Your task to perform on an android device: Open calendar and show me the first week of next month Image 0: 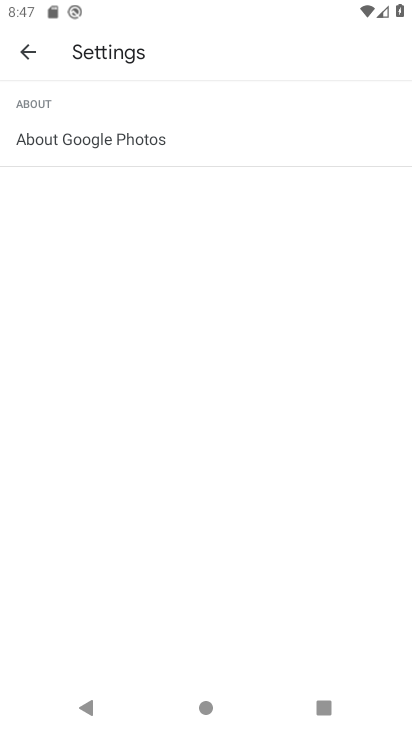
Step 0: press home button
Your task to perform on an android device: Open calendar and show me the first week of next month Image 1: 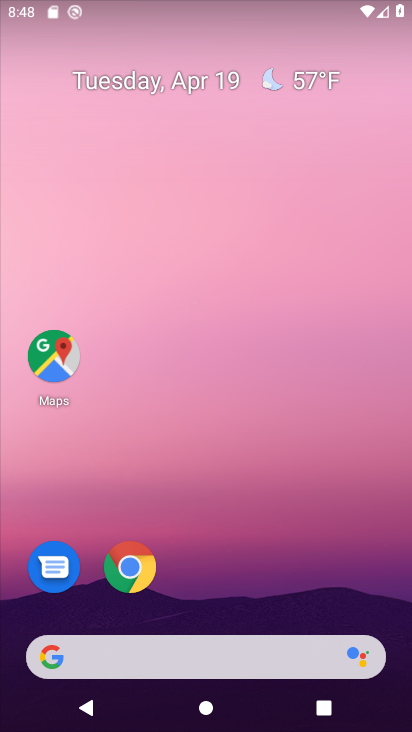
Step 1: drag from (272, 673) to (265, 0)
Your task to perform on an android device: Open calendar and show me the first week of next month Image 2: 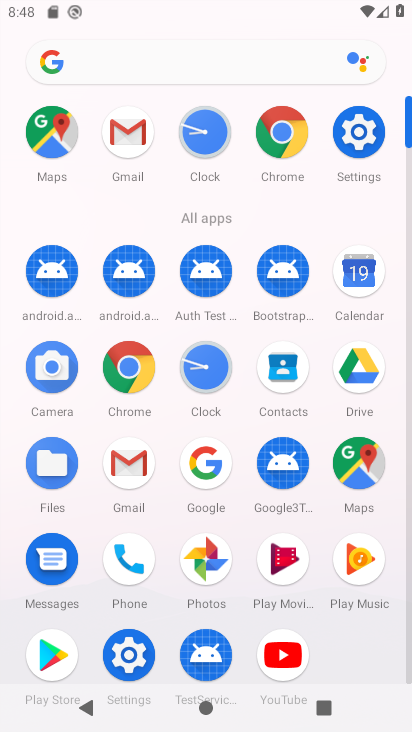
Step 2: click (367, 284)
Your task to perform on an android device: Open calendar and show me the first week of next month Image 3: 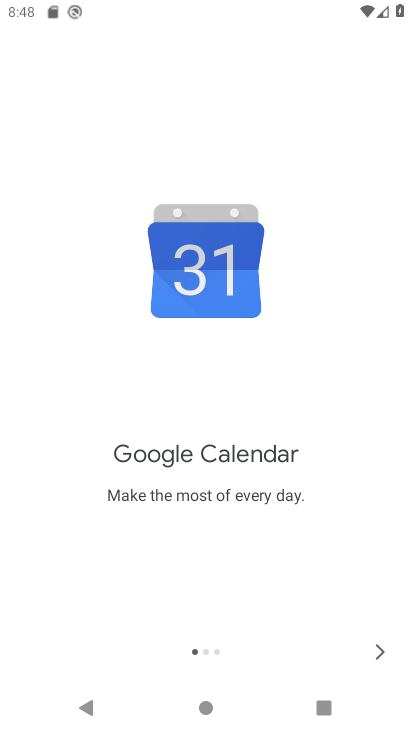
Step 3: click (368, 654)
Your task to perform on an android device: Open calendar and show me the first week of next month Image 4: 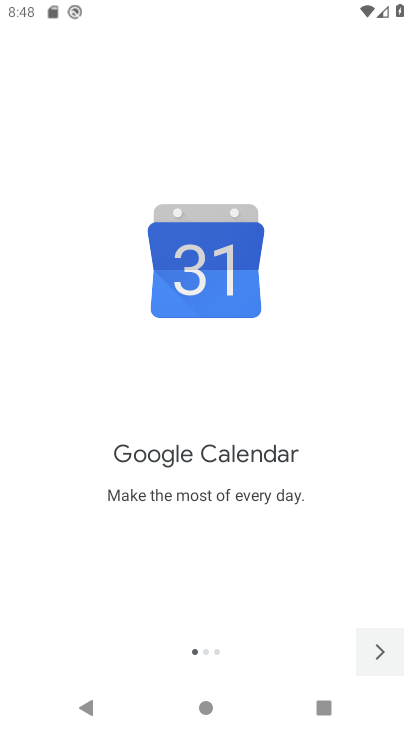
Step 4: click (368, 654)
Your task to perform on an android device: Open calendar and show me the first week of next month Image 5: 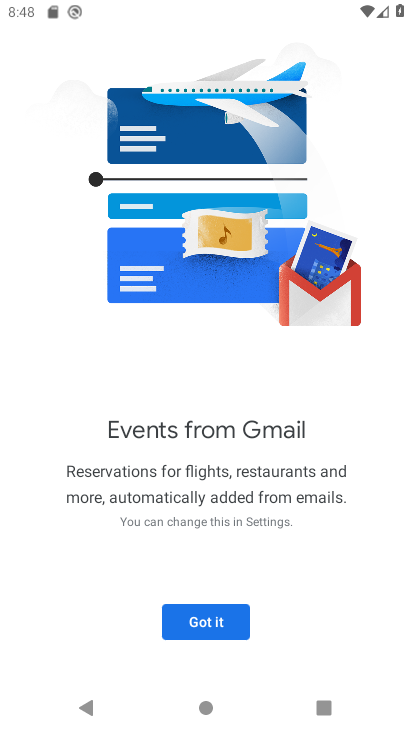
Step 5: click (368, 654)
Your task to perform on an android device: Open calendar and show me the first week of next month Image 6: 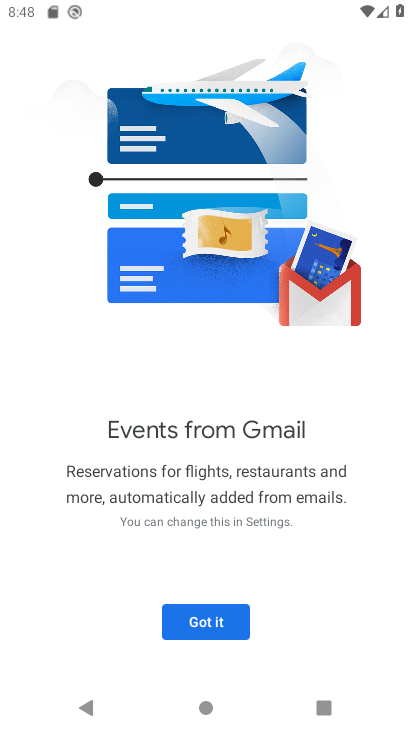
Step 6: click (179, 610)
Your task to perform on an android device: Open calendar and show me the first week of next month Image 7: 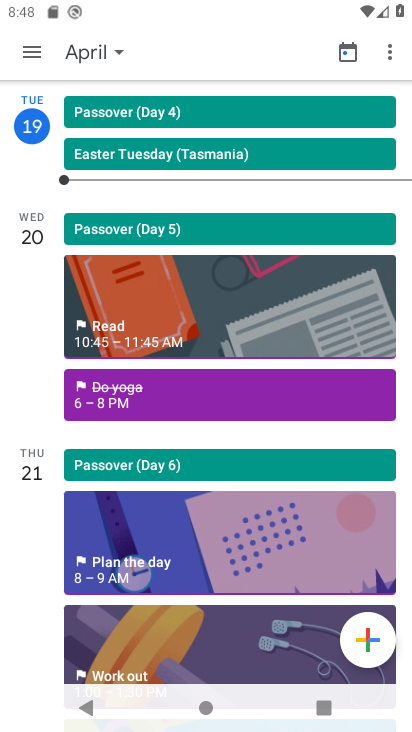
Step 7: click (98, 55)
Your task to perform on an android device: Open calendar and show me the first week of next month Image 8: 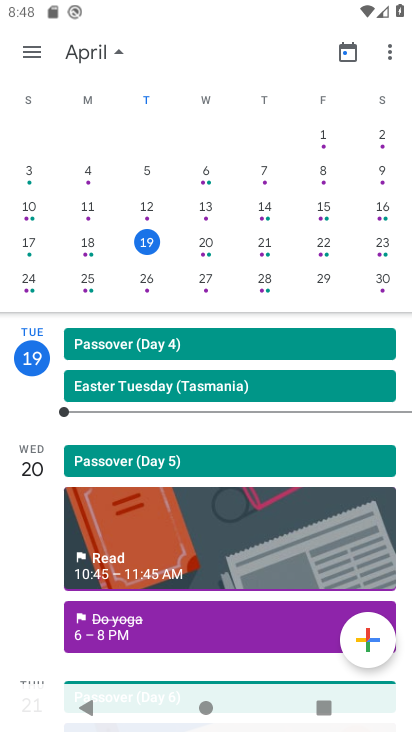
Step 8: drag from (289, 189) to (2, 239)
Your task to perform on an android device: Open calendar and show me the first week of next month Image 9: 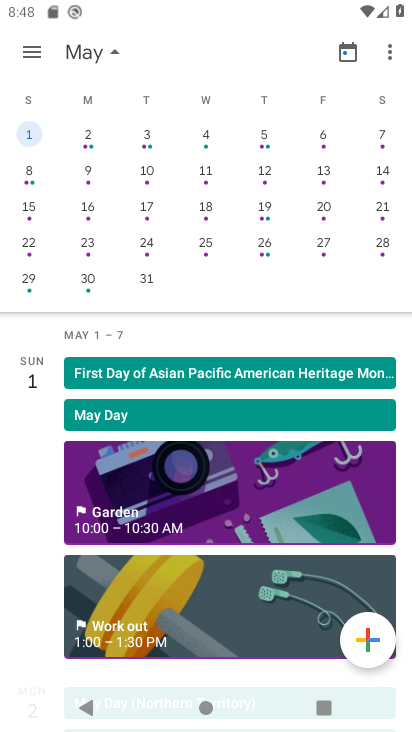
Step 9: click (31, 137)
Your task to perform on an android device: Open calendar and show me the first week of next month Image 10: 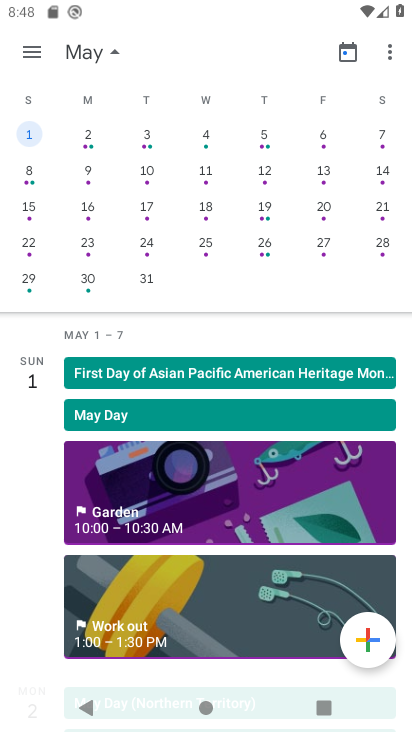
Step 10: task complete